Your task to perform on an android device: change keyboard looks Image 0: 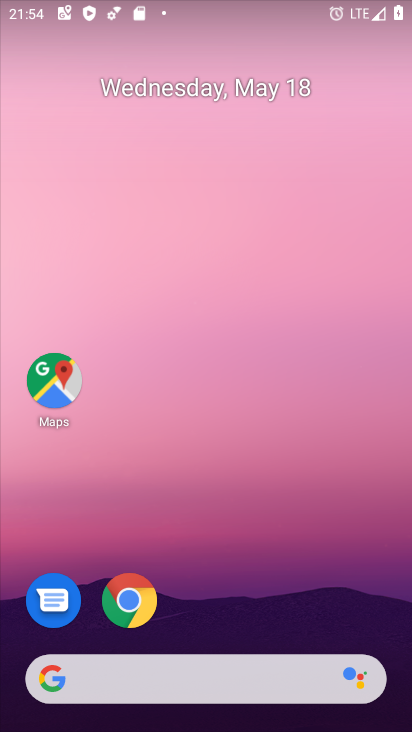
Step 0: drag from (236, 598) to (332, 58)
Your task to perform on an android device: change keyboard looks Image 1: 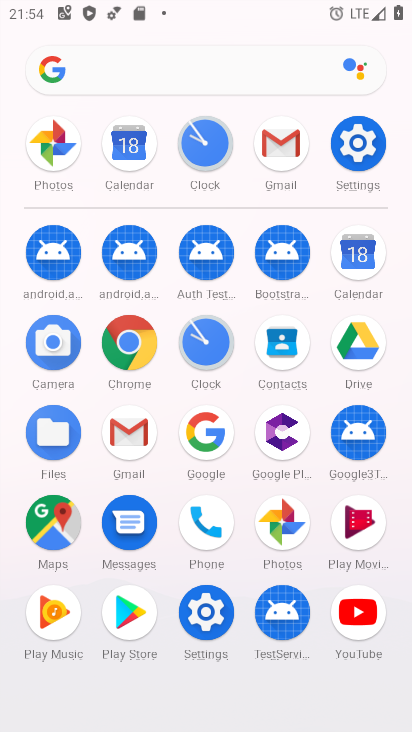
Step 1: click (367, 140)
Your task to perform on an android device: change keyboard looks Image 2: 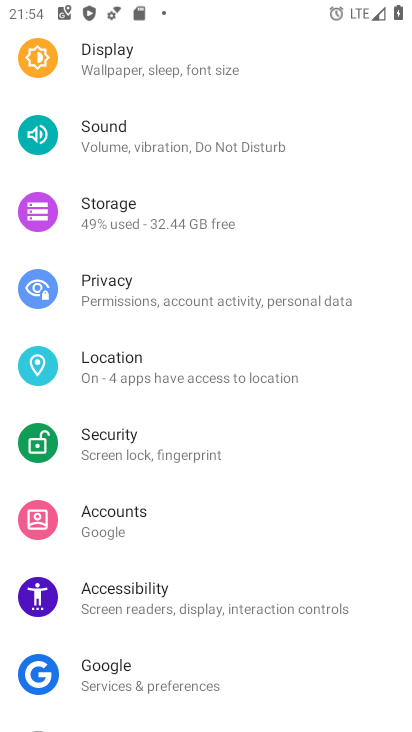
Step 2: drag from (202, 576) to (333, 28)
Your task to perform on an android device: change keyboard looks Image 3: 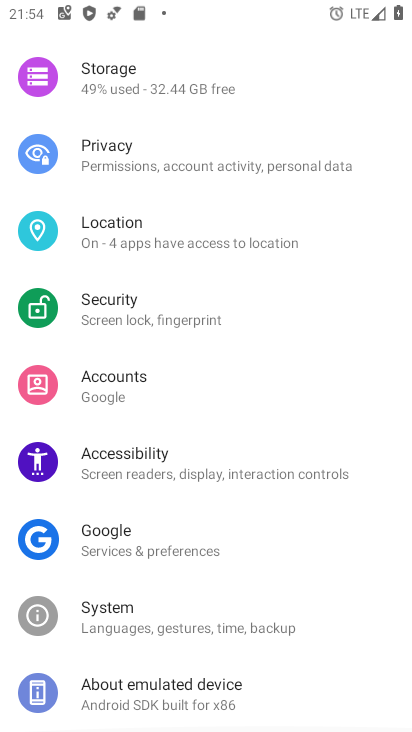
Step 3: drag from (204, 653) to (265, 94)
Your task to perform on an android device: change keyboard looks Image 4: 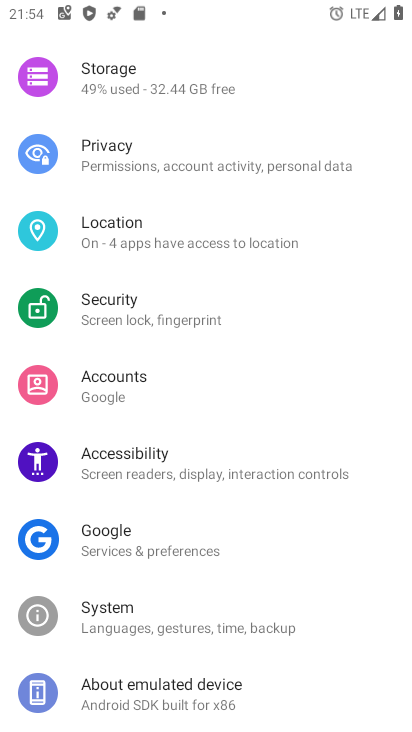
Step 4: drag from (277, 187) to (286, 97)
Your task to perform on an android device: change keyboard looks Image 5: 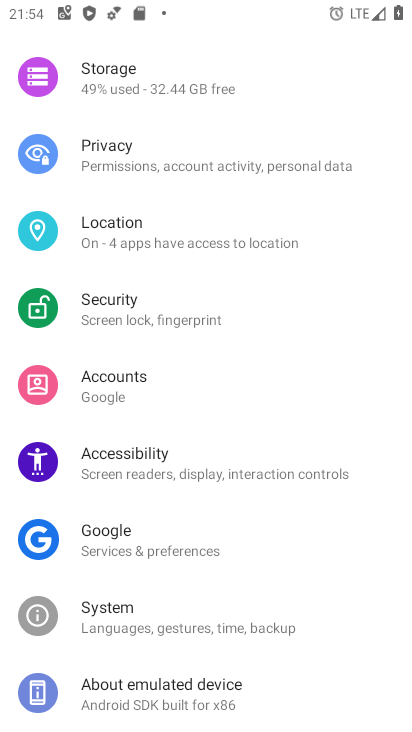
Step 5: drag from (187, 661) to (323, 90)
Your task to perform on an android device: change keyboard looks Image 6: 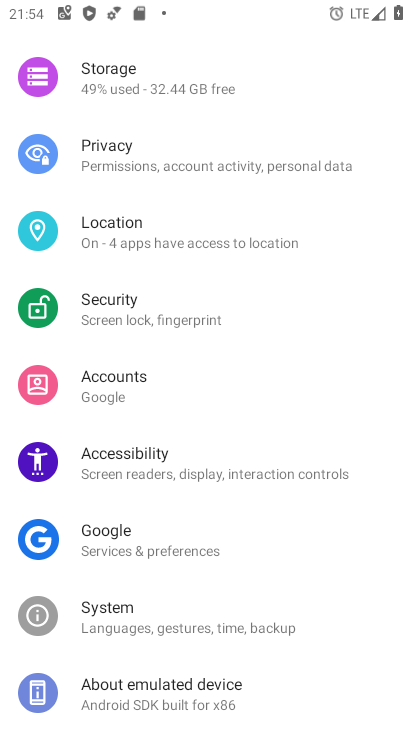
Step 6: click (152, 686)
Your task to perform on an android device: change keyboard looks Image 7: 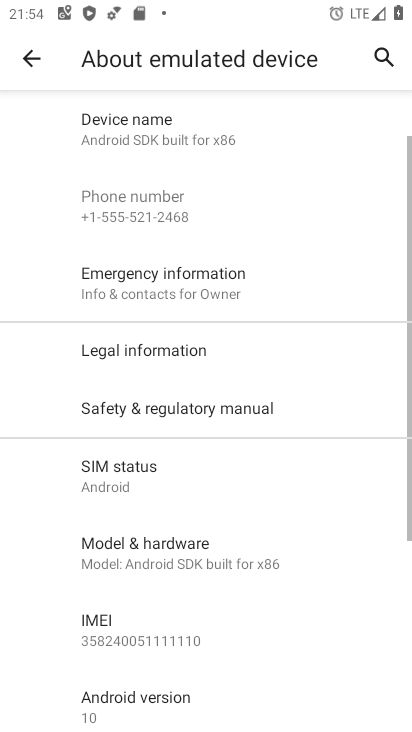
Step 7: click (22, 57)
Your task to perform on an android device: change keyboard looks Image 8: 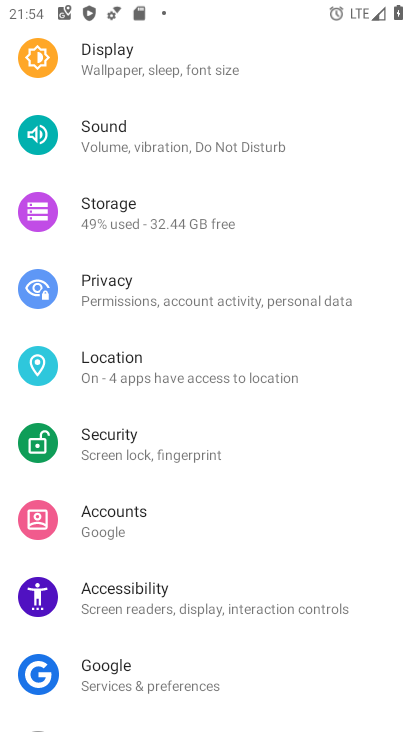
Step 8: drag from (182, 652) to (353, 0)
Your task to perform on an android device: change keyboard looks Image 9: 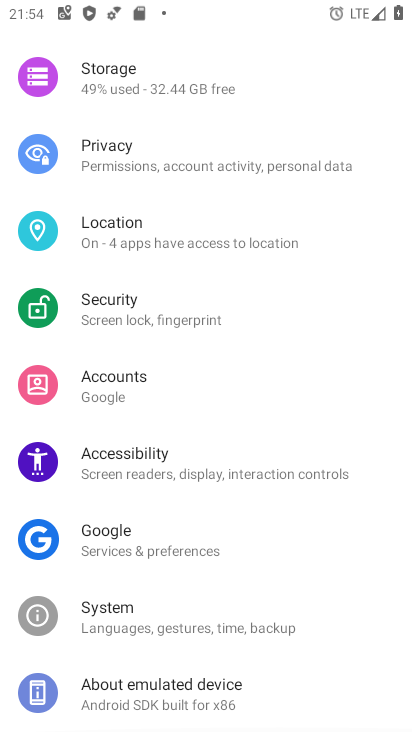
Step 9: click (101, 618)
Your task to perform on an android device: change keyboard looks Image 10: 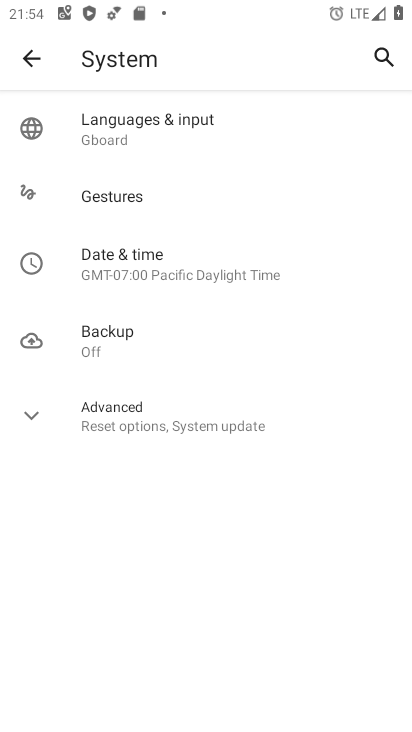
Step 10: click (130, 132)
Your task to perform on an android device: change keyboard looks Image 11: 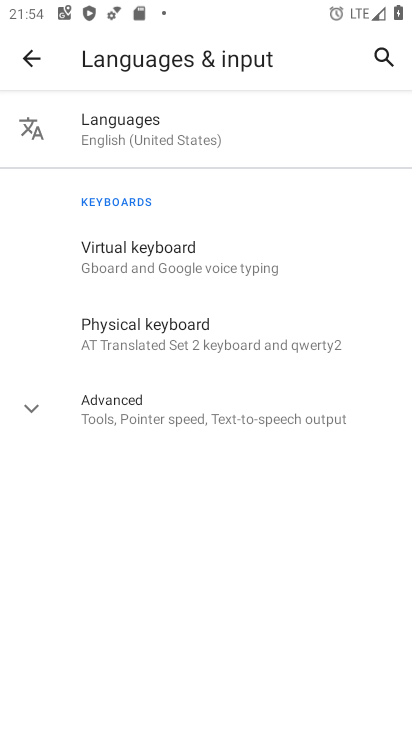
Step 11: click (112, 248)
Your task to perform on an android device: change keyboard looks Image 12: 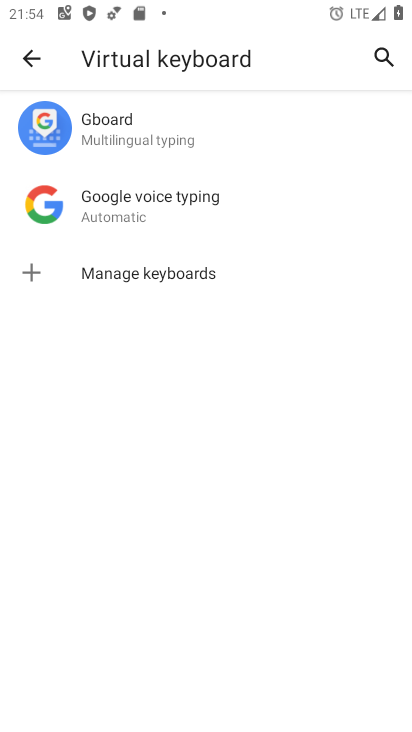
Step 12: click (105, 126)
Your task to perform on an android device: change keyboard looks Image 13: 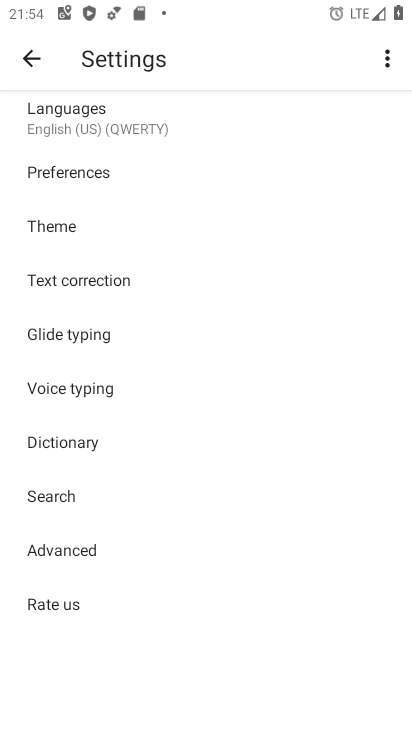
Step 13: click (86, 231)
Your task to perform on an android device: change keyboard looks Image 14: 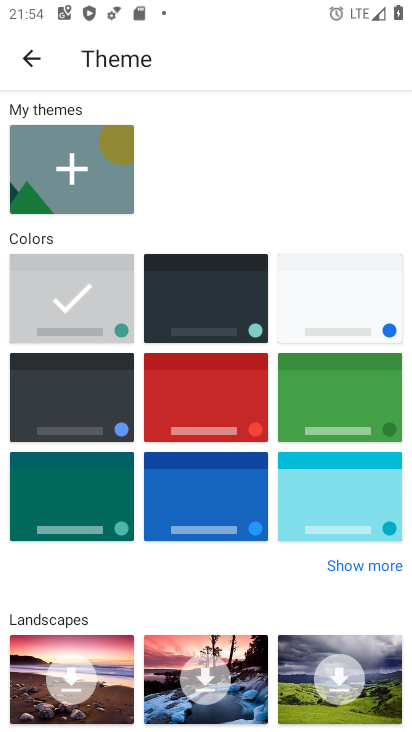
Step 14: click (348, 403)
Your task to perform on an android device: change keyboard looks Image 15: 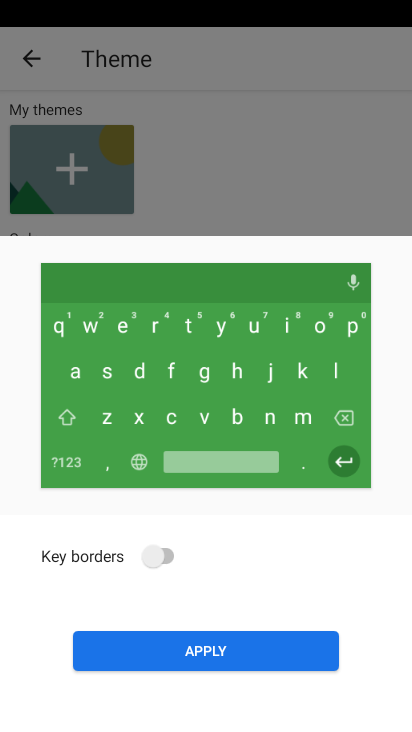
Step 15: click (152, 562)
Your task to perform on an android device: change keyboard looks Image 16: 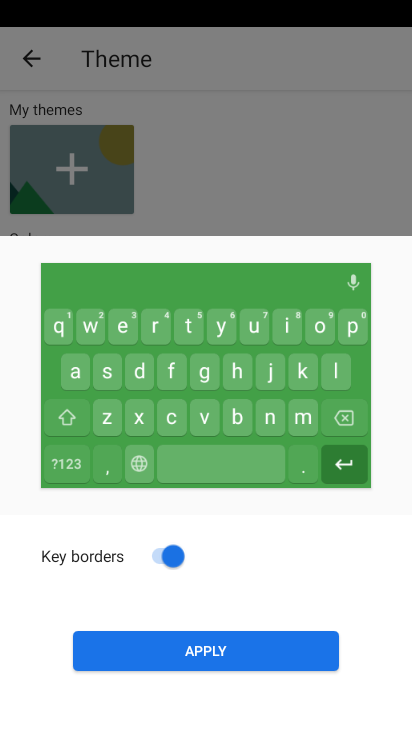
Step 16: click (157, 652)
Your task to perform on an android device: change keyboard looks Image 17: 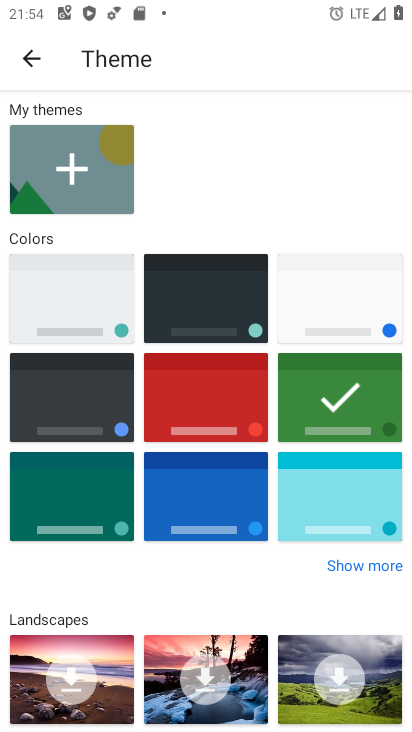
Step 17: task complete